Your task to perform on an android device: turn smart compose on in the gmail app Image 0: 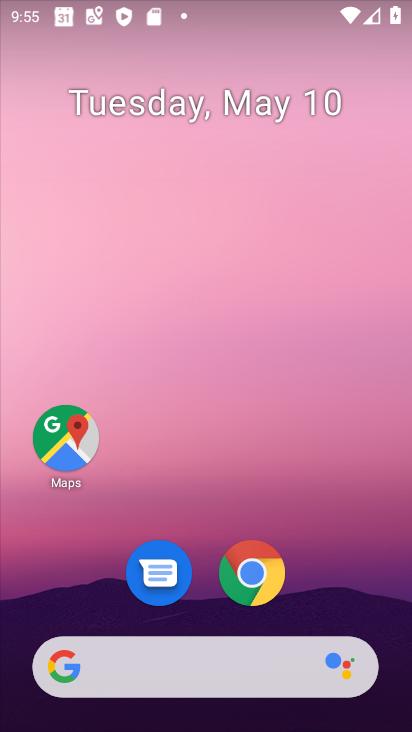
Step 0: drag from (354, 535) to (257, 57)
Your task to perform on an android device: turn smart compose on in the gmail app Image 1: 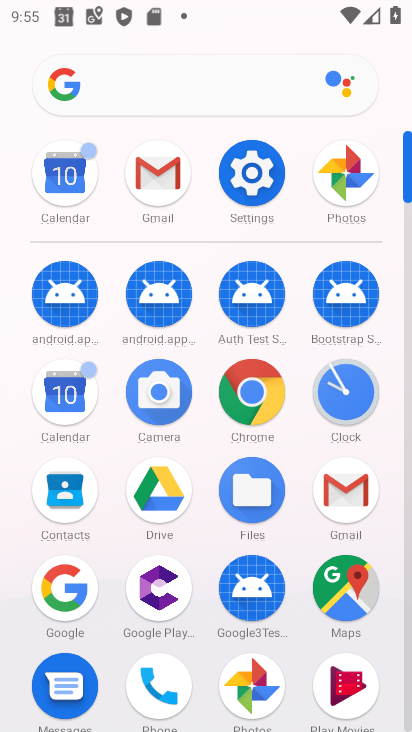
Step 1: click (158, 177)
Your task to perform on an android device: turn smart compose on in the gmail app Image 2: 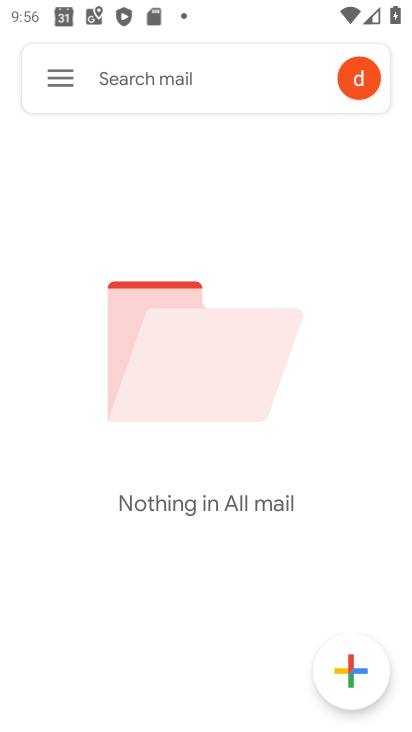
Step 2: click (59, 74)
Your task to perform on an android device: turn smart compose on in the gmail app Image 3: 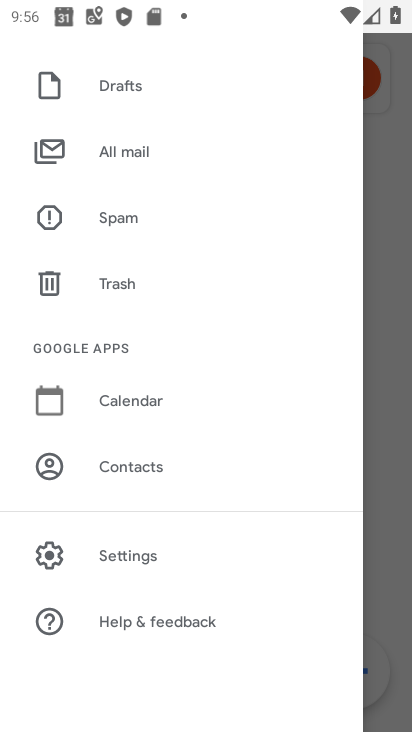
Step 3: click (121, 555)
Your task to perform on an android device: turn smart compose on in the gmail app Image 4: 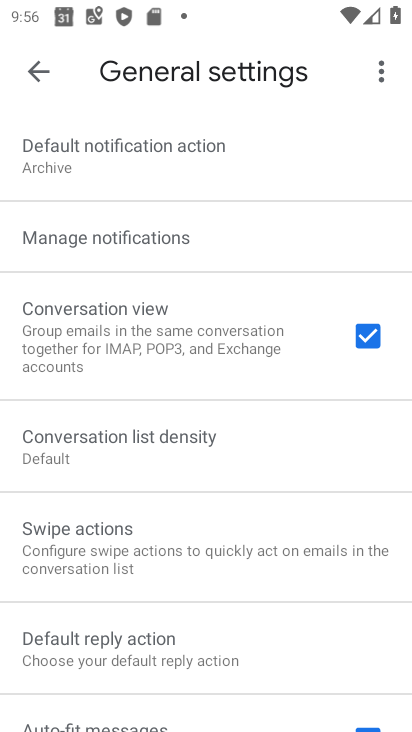
Step 4: drag from (184, 479) to (130, 129)
Your task to perform on an android device: turn smart compose on in the gmail app Image 5: 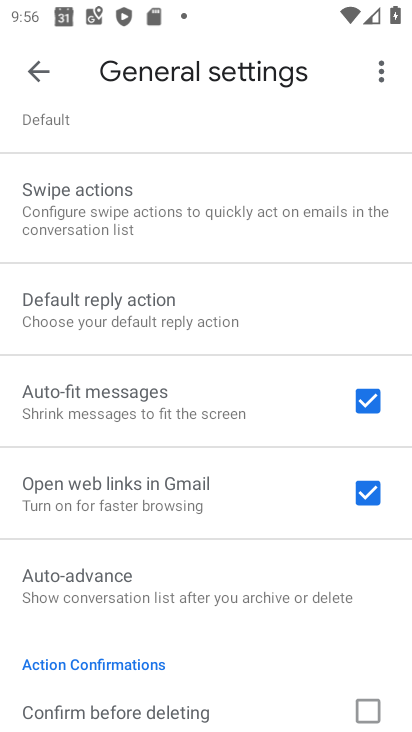
Step 5: drag from (175, 510) to (138, 2)
Your task to perform on an android device: turn smart compose on in the gmail app Image 6: 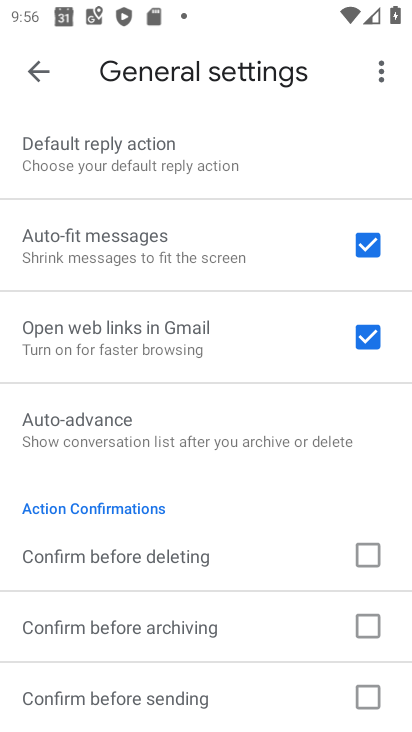
Step 6: click (30, 67)
Your task to perform on an android device: turn smart compose on in the gmail app Image 7: 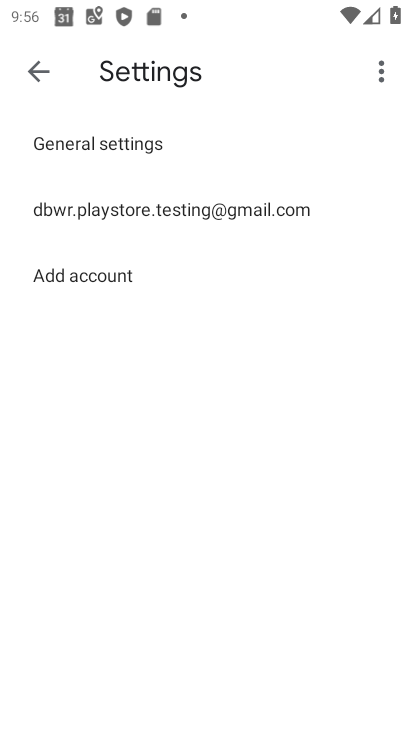
Step 7: click (110, 206)
Your task to perform on an android device: turn smart compose on in the gmail app Image 8: 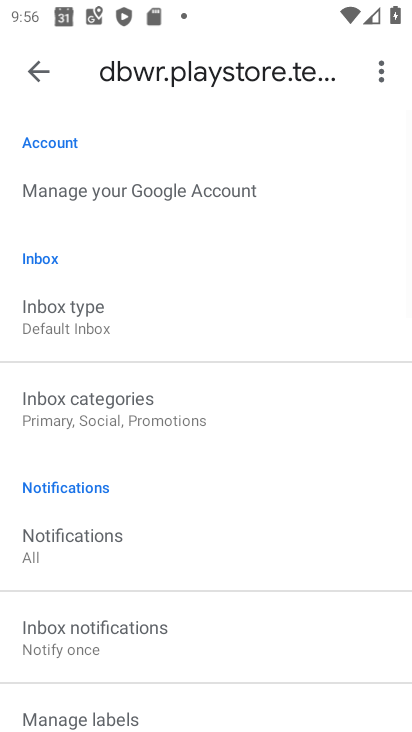
Step 8: task complete